Your task to perform on an android device: set an alarm Image 0: 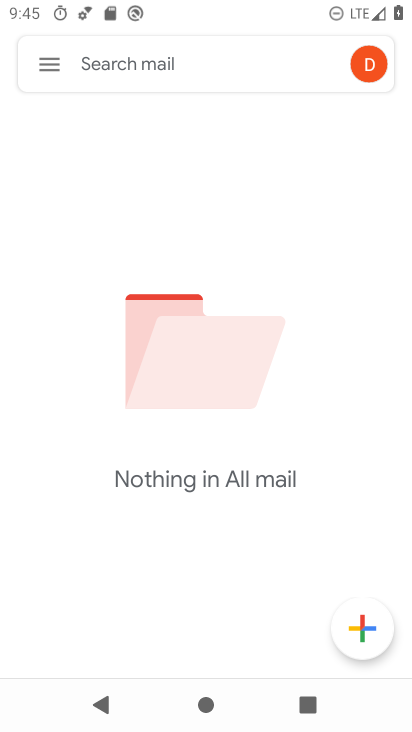
Step 0: press home button
Your task to perform on an android device: set an alarm Image 1: 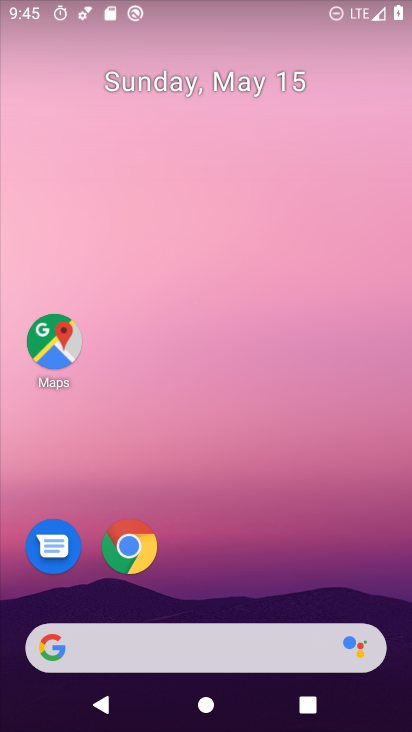
Step 1: drag from (232, 462) to (257, 61)
Your task to perform on an android device: set an alarm Image 2: 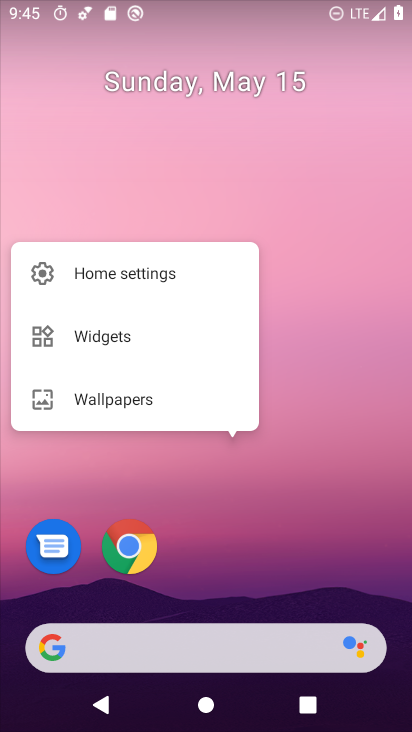
Step 2: click (340, 195)
Your task to perform on an android device: set an alarm Image 3: 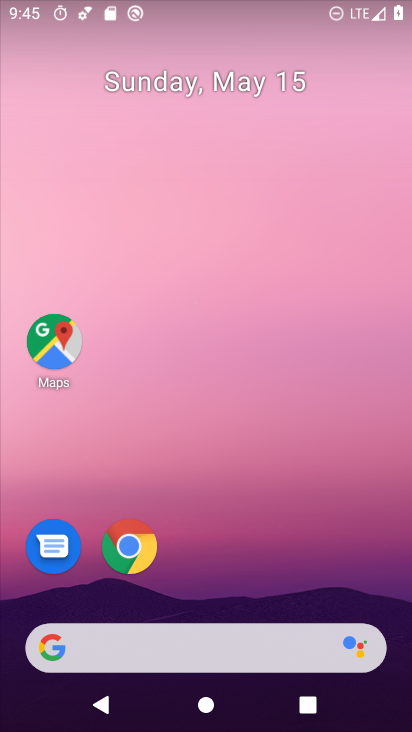
Step 3: drag from (186, 521) to (235, 9)
Your task to perform on an android device: set an alarm Image 4: 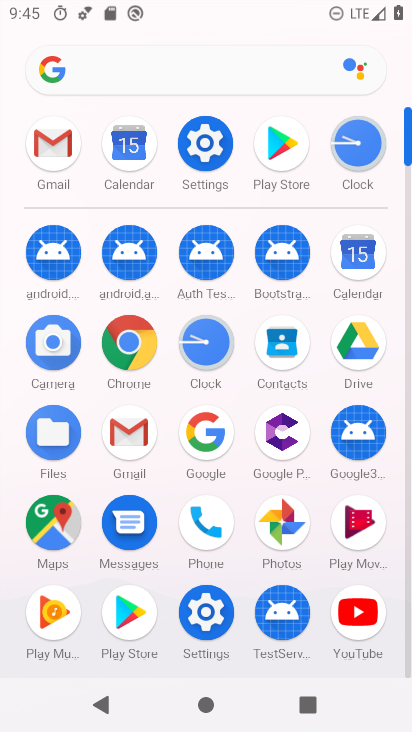
Step 4: click (347, 146)
Your task to perform on an android device: set an alarm Image 5: 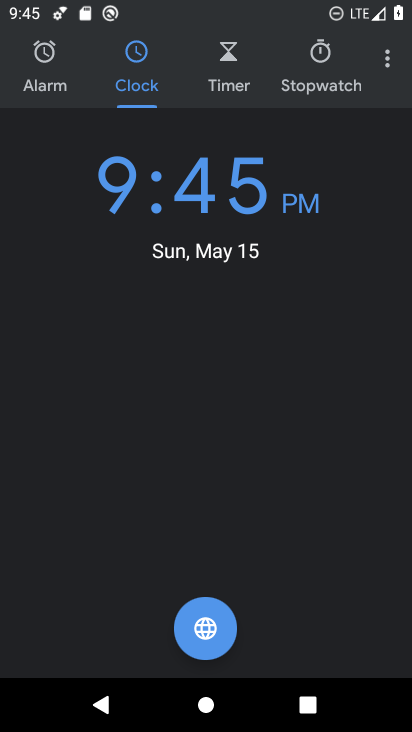
Step 5: click (50, 56)
Your task to perform on an android device: set an alarm Image 6: 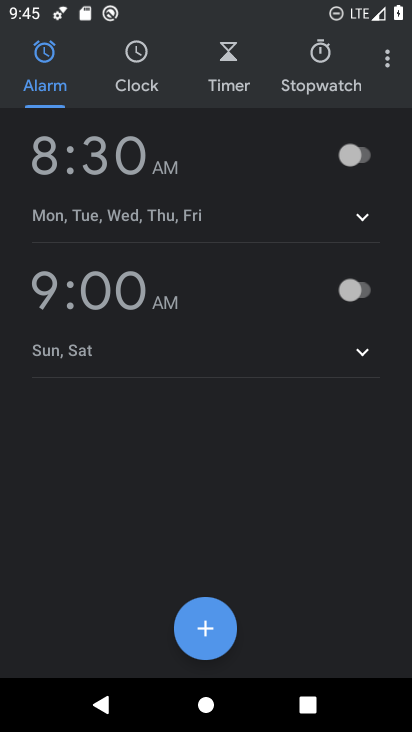
Step 6: click (210, 621)
Your task to perform on an android device: set an alarm Image 7: 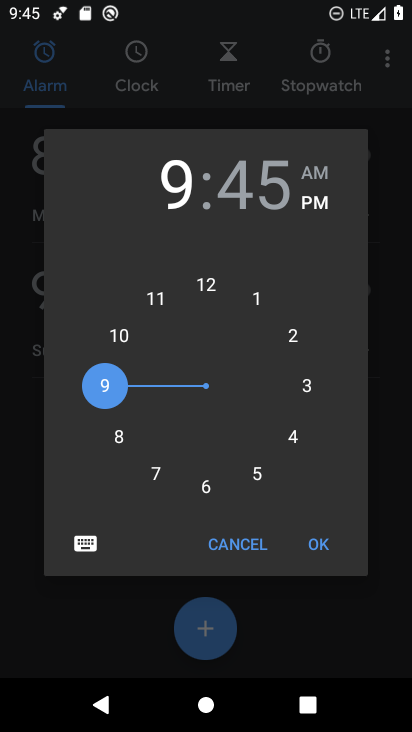
Step 7: click (262, 198)
Your task to perform on an android device: set an alarm Image 8: 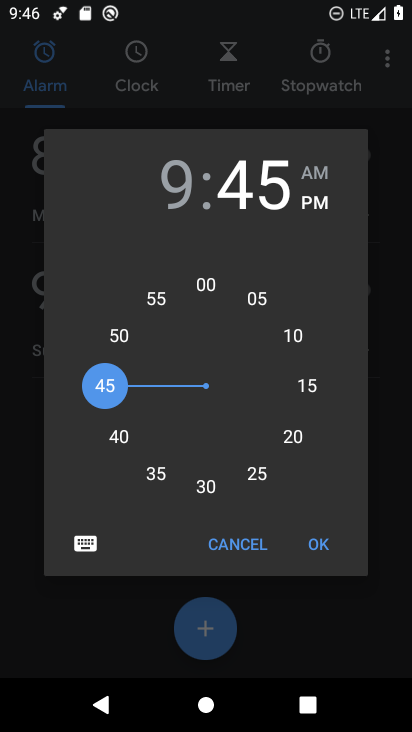
Step 8: click (321, 542)
Your task to perform on an android device: set an alarm Image 9: 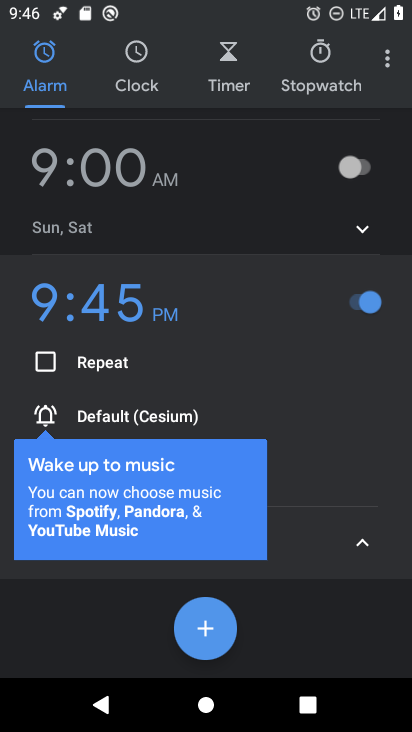
Step 9: task complete